Your task to perform on an android device: Open Chrome and go to settings Image 0: 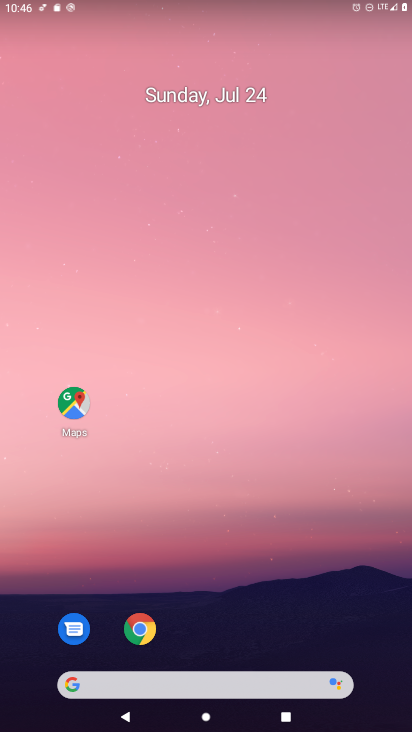
Step 0: drag from (366, 663) to (216, 45)
Your task to perform on an android device: Open Chrome and go to settings Image 1: 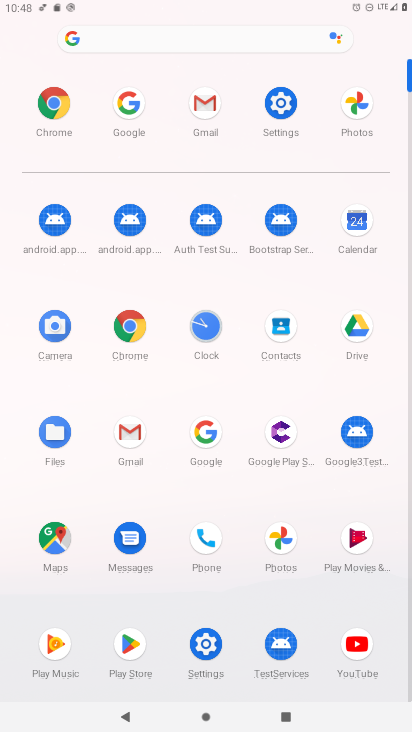
Step 1: click (118, 326)
Your task to perform on an android device: Open Chrome and go to settings Image 2: 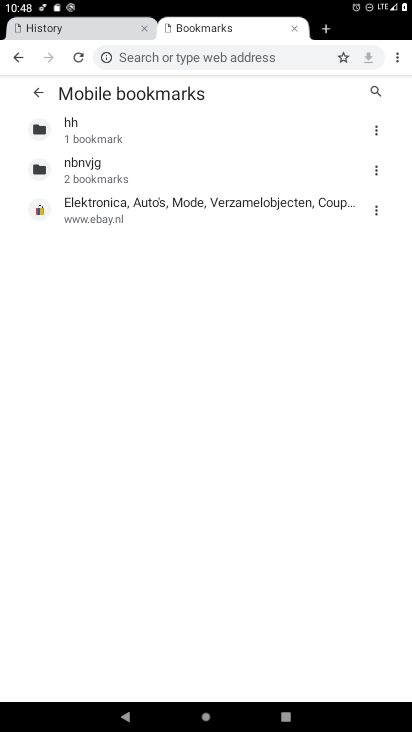
Step 2: click (395, 54)
Your task to perform on an android device: Open Chrome and go to settings Image 3: 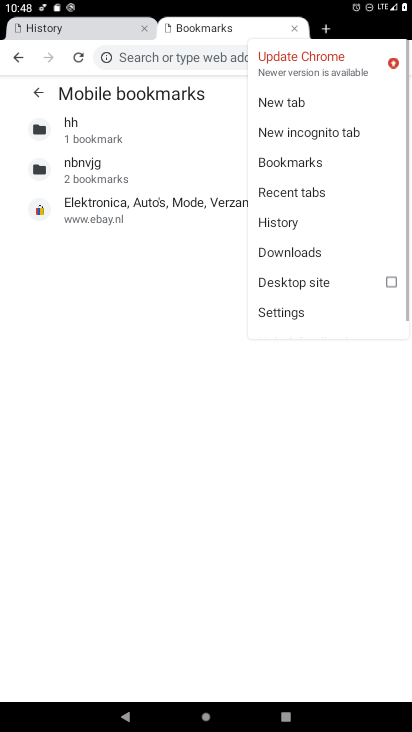
Step 3: click (280, 310)
Your task to perform on an android device: Open Chrome and go to settings Image 4: 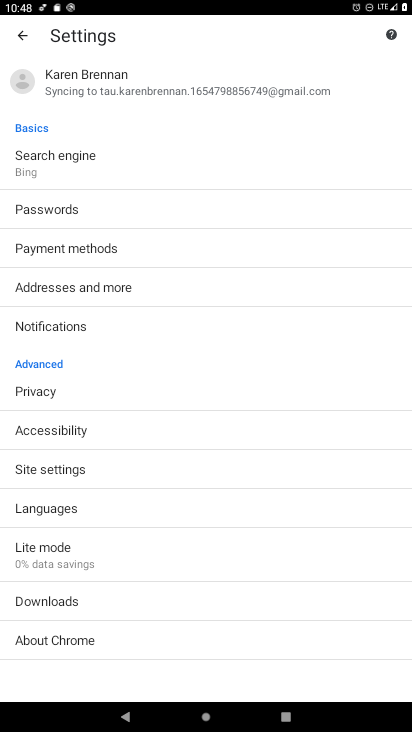
Step 4: task complete